Your task to perform on an android device: turn off data saver in the chrome app Image 0: 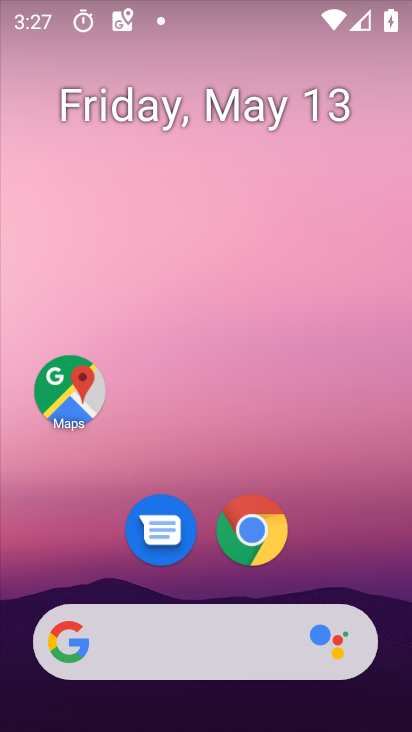
Step 0: drag from (384, 492) to (341, 95)
Your task to perform on an android device: turn off data saver in the chrome app Image 1: 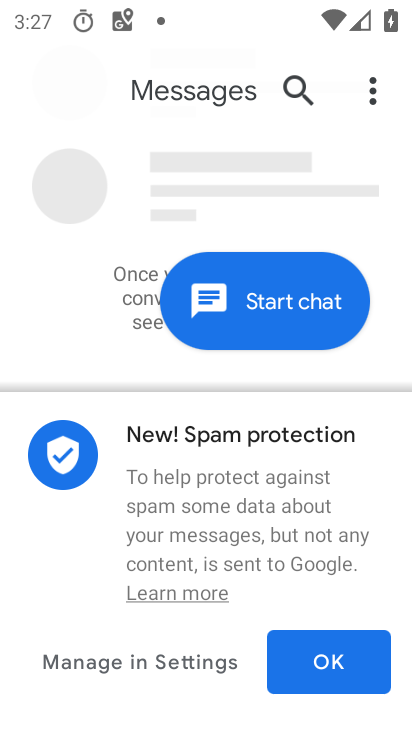
Step 1: press home button
Your task to perform on an android device: turn off data saver in the chrome app Image 2: 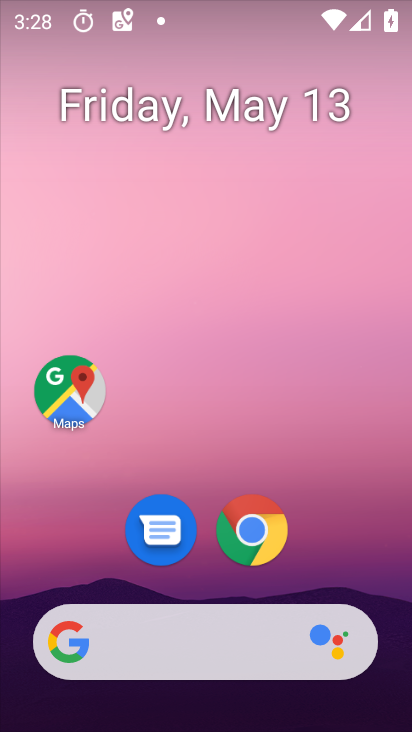
Step 2: drag from (334, 580) to (394, 27)
Your task to perform on an android device: turn off data saver in the chrome app Image 3: 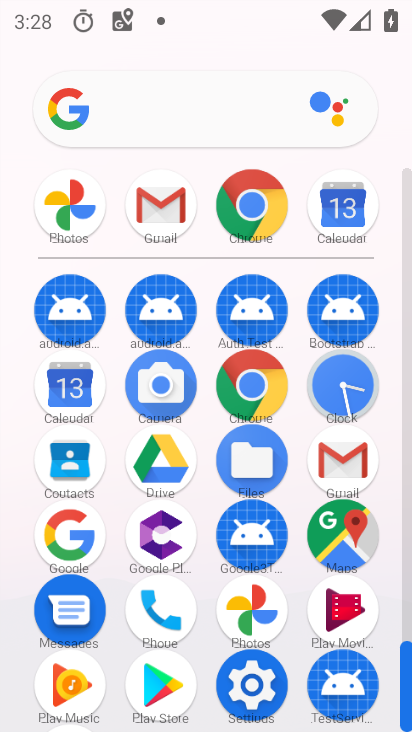
Step 3: click (265, 198)
Your task to perform on an android device: turn off data saver in the chrome app Image 4: 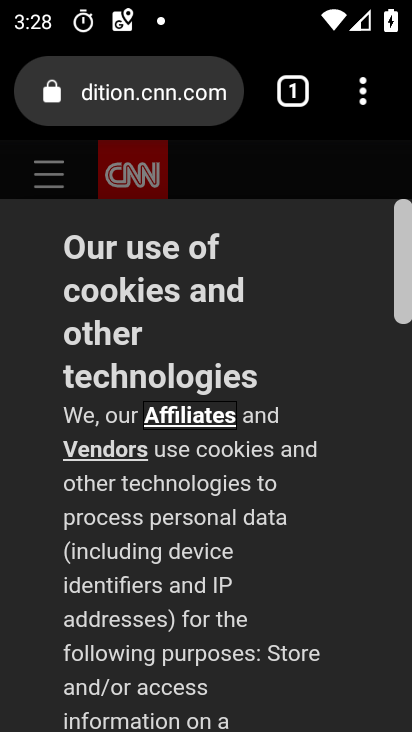
Step 4: click (366, 84)
Your task to perform on an android device: turn off data saver in the chrome app Image 5: 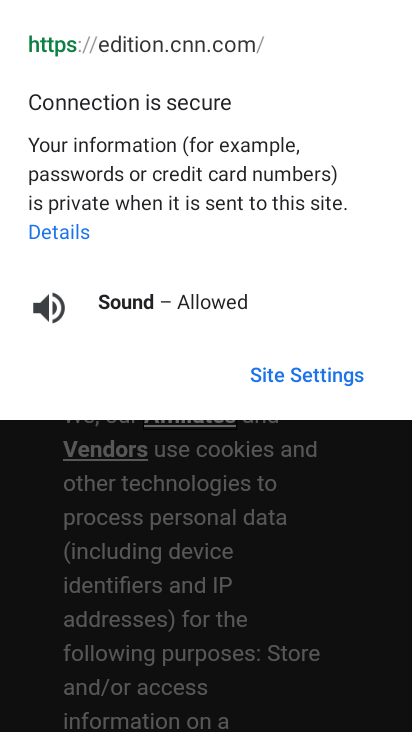
Step 5: click (250, 491)
Your task to perform on an android device: turn off data saver in the chrome app Image 6: 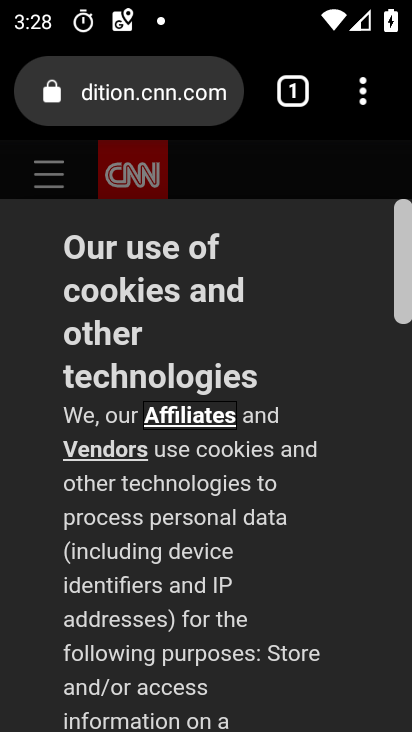
Step 6: drag from (370, 87) to (182, 564)
Your task to perform on an android device: turn off data saver in the chrome app Image 7: 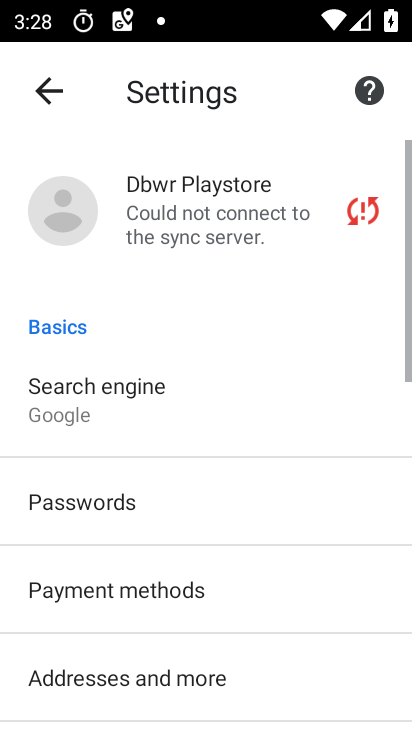
Step 7: drag from (243, 581) to (295, 149)
Your task to perform on an android device: turn off data saver in the chrome app Image 8: 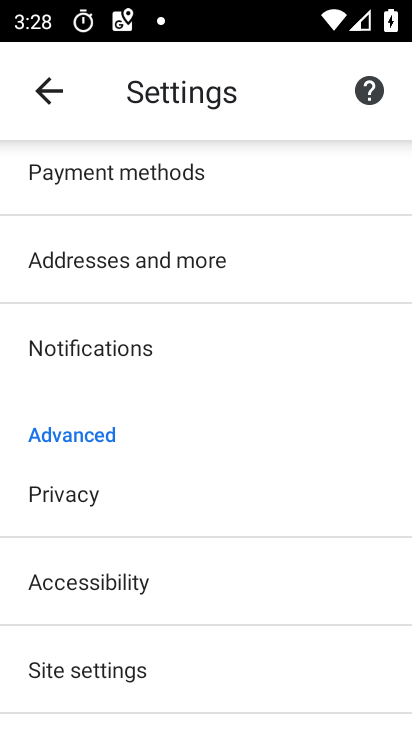
Step 8: drag from (219, 552) to (263, 214)
Your task to perform on an android device: turn off data saver in the chrome app Image 9: 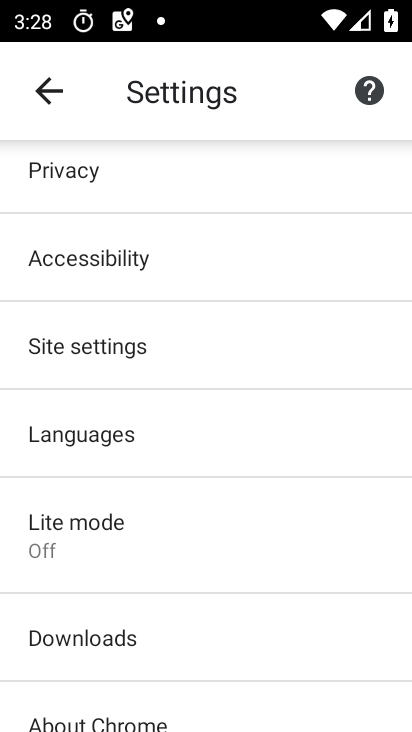
Step 9: click (142, 334)
Your task to perform on an android device: turn off data saver in the chrome app Image 10: 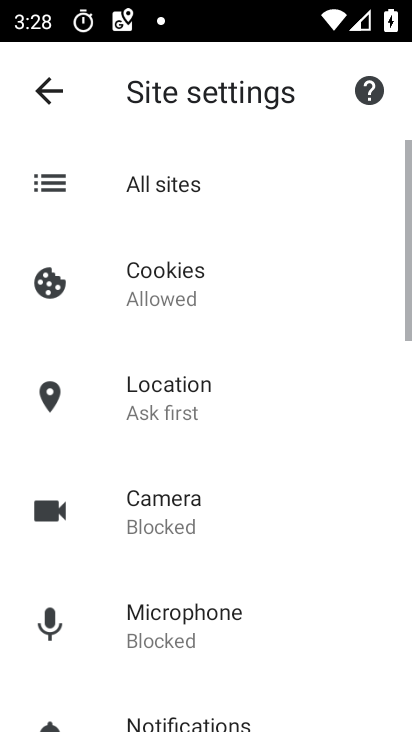
Step 10: drag from (329, 575) to (257, 214)
Your task to perform on an android device: turn off data saver in the chrome app Image 11: 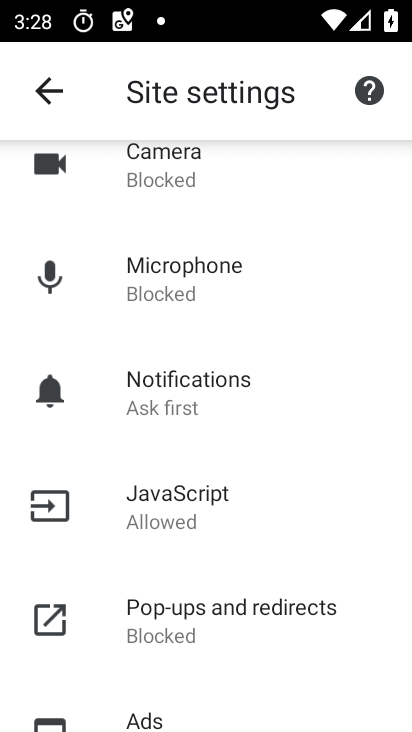
Step 11: click (161, 511)
Your task to perform on an android device: turn off data saver in the chrome app Image 12: 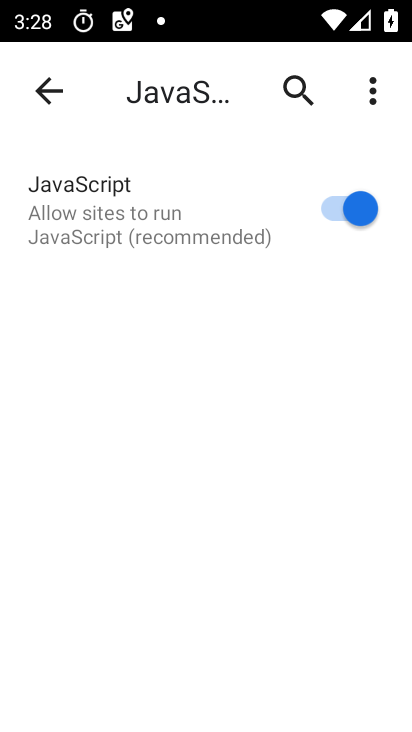
Step 12: click (396, 204)
Your task to perform on an android device: turn off data saver in the chrome app Image 13: 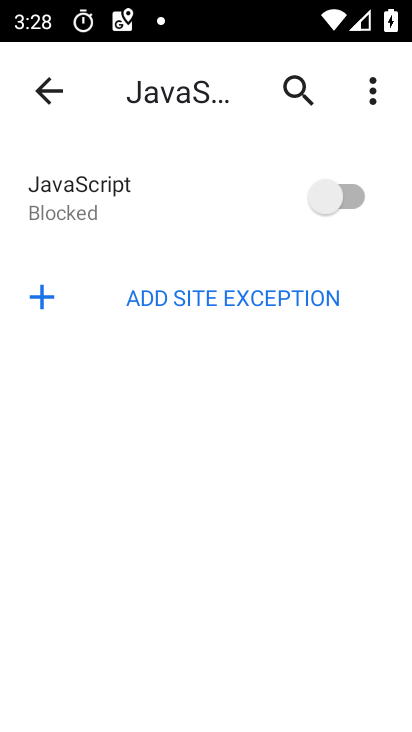
Step 13: task complete